Your task to perform on an android device: turn on data saver in the chrome app Image 0: 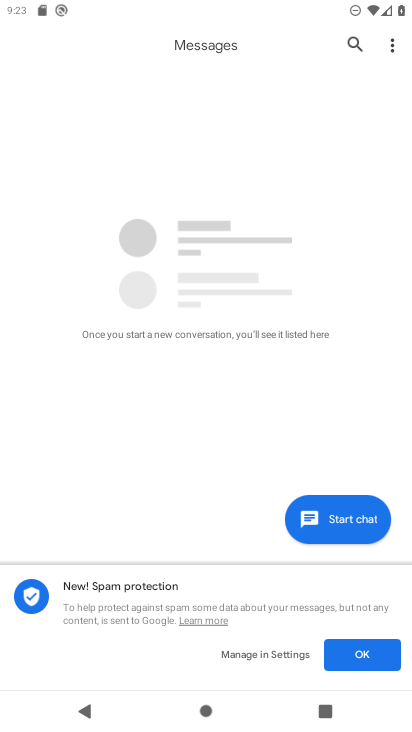
Step 0: press home button
Your task to perform on an android device: turn on data saver in the chrome app Image 1: 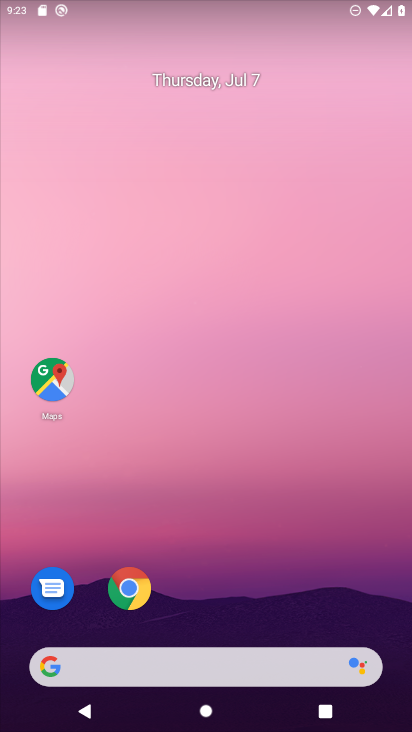
Step 1: click (134, 584)
Your task to perform on an android device: turn on data saver in the chrome app Image 2: 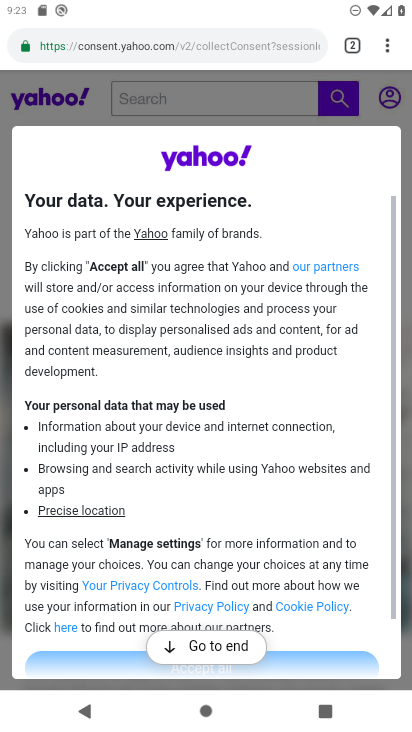
Step 2: click (396, 49)
Your task to perform on an android device: turn on data saver in the chrome app Image 3: 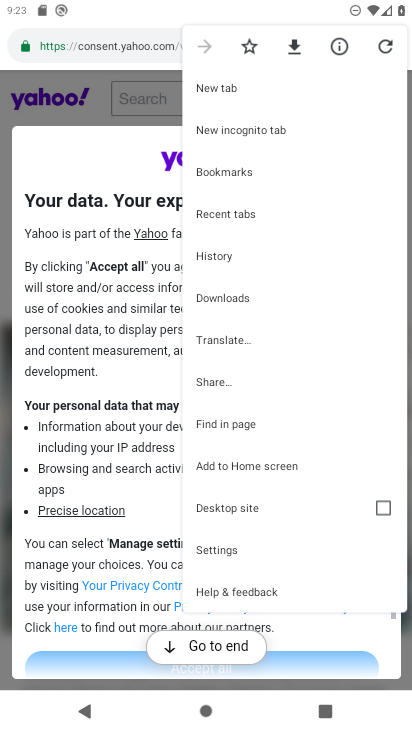
Step 3: click (260, 544)
Your task to perform on an android device: turn on data saver in the chrome app Image 4: 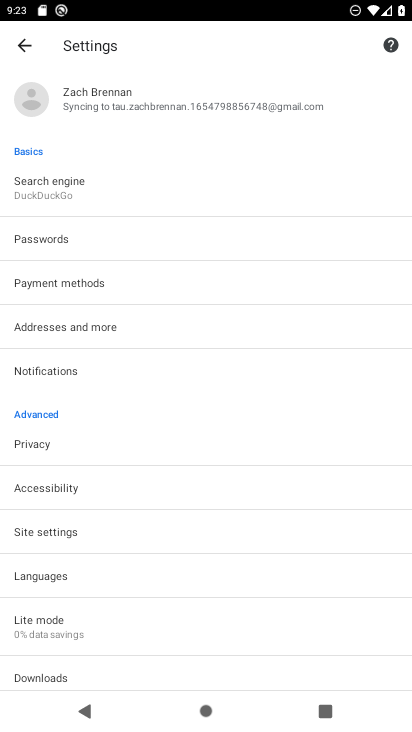
Step 4: click (72, 632)
Your task to perform on an android device: turn on data saver in the chrome app Image 5: 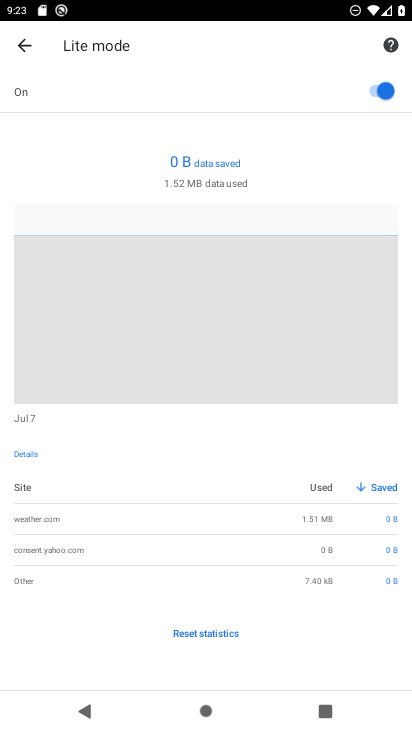
Step 5: task complete